Your task to perform on an android device: check android version Image 0: 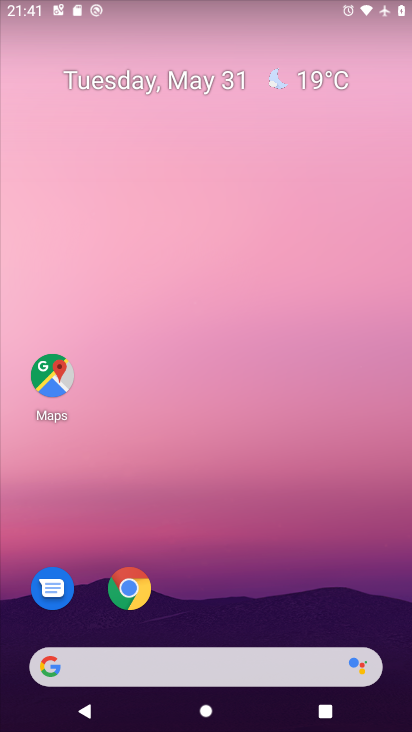
Step 0: drag from (151, 669) to (316, 111)
Your task to perform on an android device: check android version Image 1: 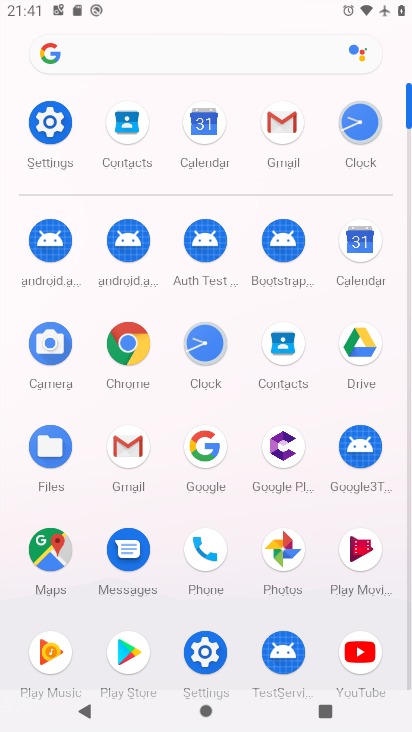
Step 1: click (50, 126)
Your task to perform on an android device: check android version Image 2: 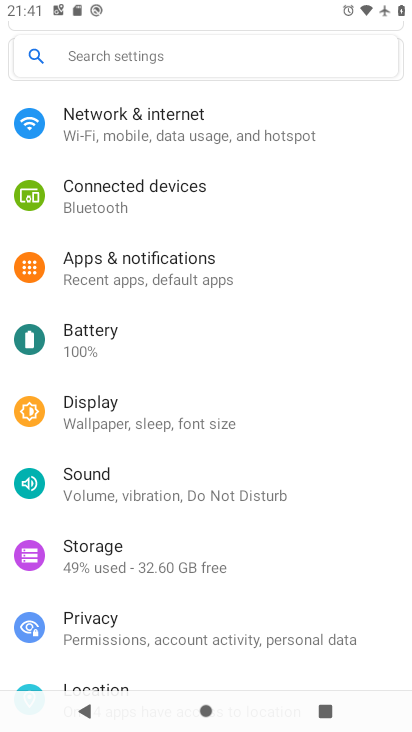
Step 2: drag from (201, 660) to (303, 30)
Your task to perform on an android device: check android version Image 3: 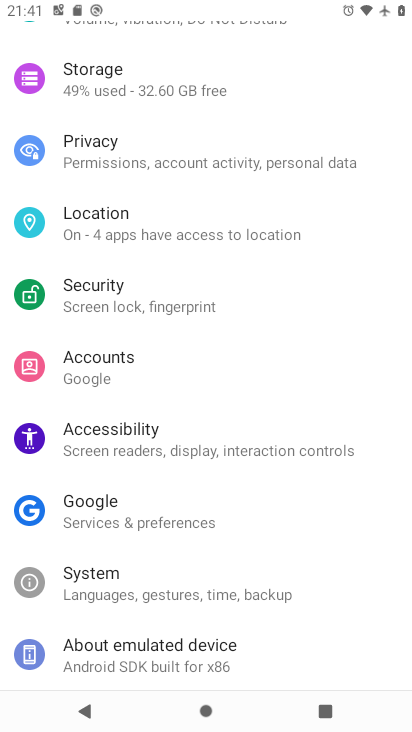
Step 3: click (106, 653)
Your task to perform on an android device: check android version Image 4: 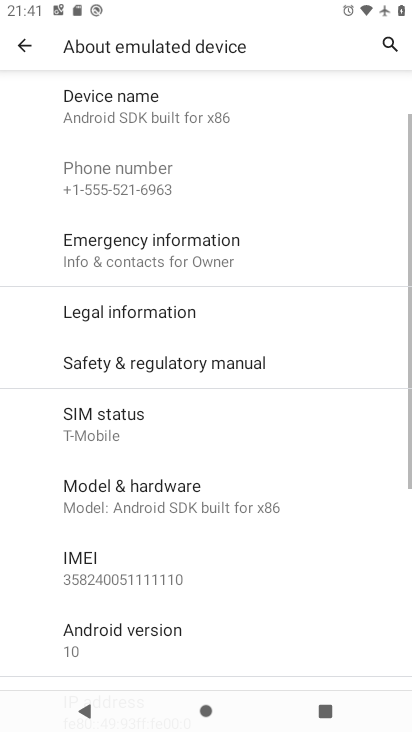
Step 4: drag from (201, 616) to (257, 223)
Your task to perform on an android device: check android version Image 5: 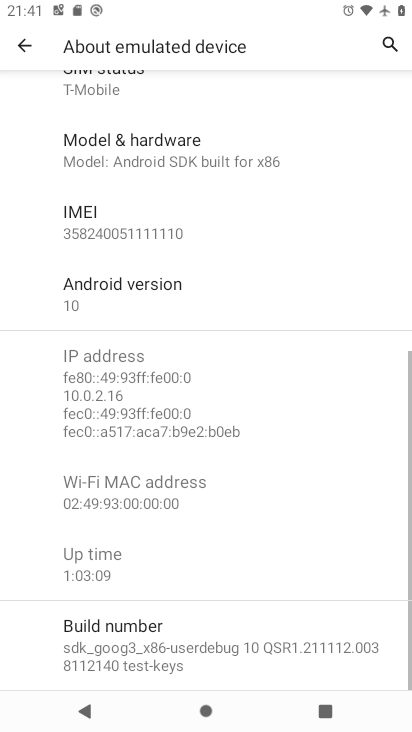
Step 5: click (127, 280)
Your task to perform on an android device: check android version Image 6: 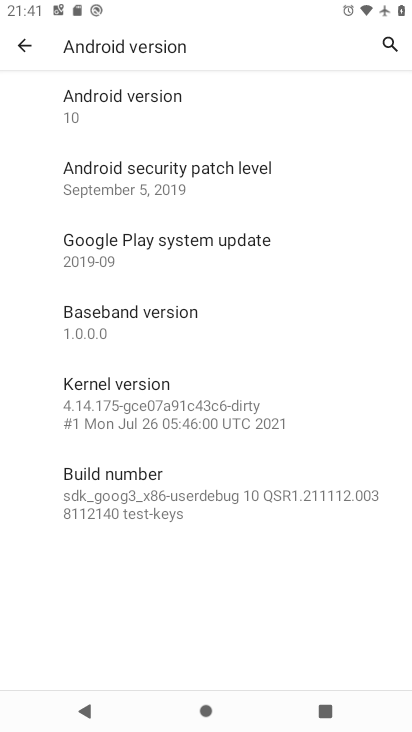
Step 6: task complete